Your task to perform on an android device: Show me productivity apps on the Play Store Image 0: 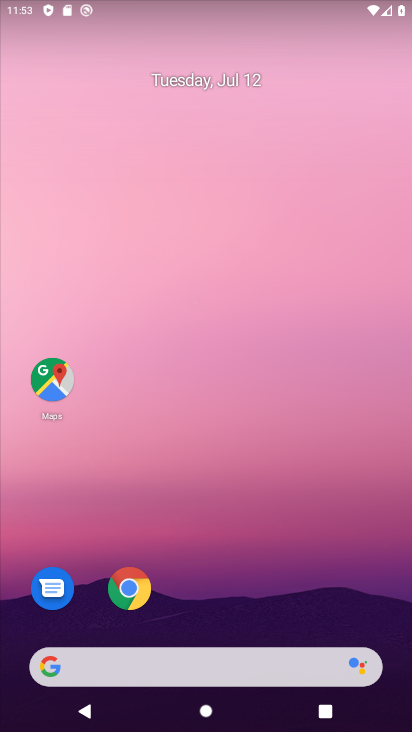
Step 0: drag from (276, 477) to (322, 80)
Your task to perform on an android device: Show me productivity apps on the Play Store Image 1: 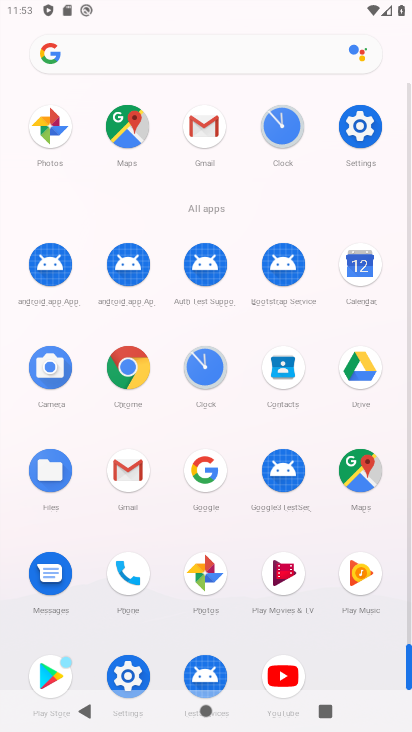
Step 1: click (50, 671)
Your task to perform on an android device: Show me productivity apps on the Play Store Image 2: 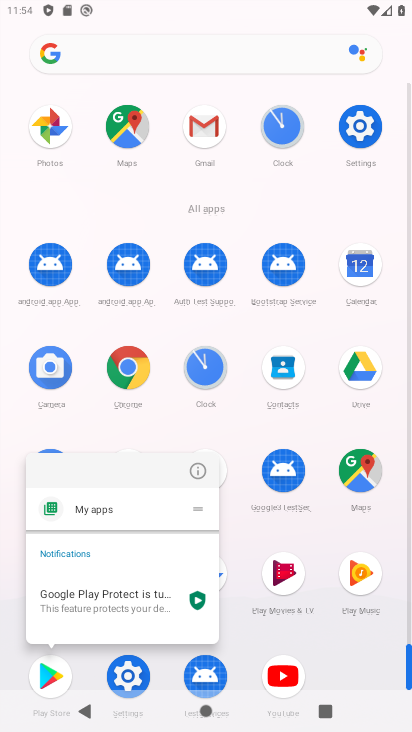
Step 2: click (197, 476)
Your task to perform on an android device: Show me productivity apps on the Play Store Image 3: 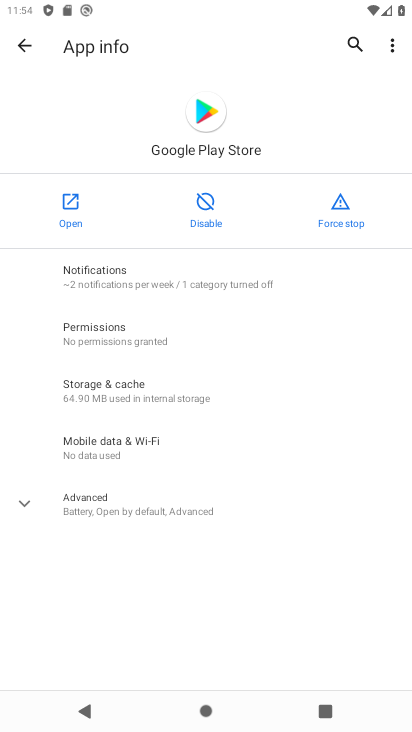
Step 3: click (72, 212)
Your task to perform on an android device: Show me productivity apps on the Play Store Image 4: 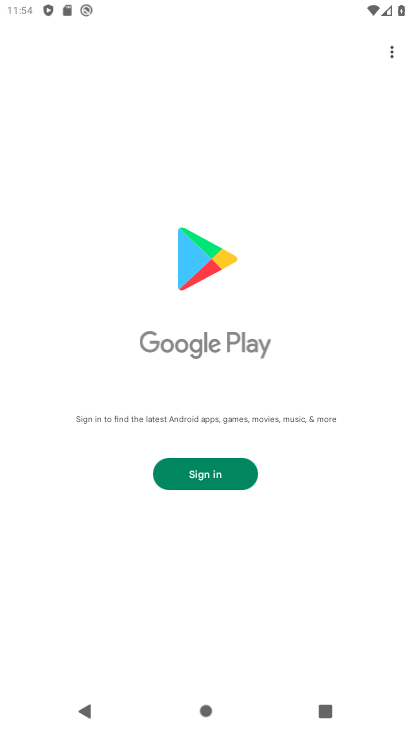
Step 4: click (289, 333)
Your task to perform on an android device: Show me productivity apps on the Play Store Image 5: 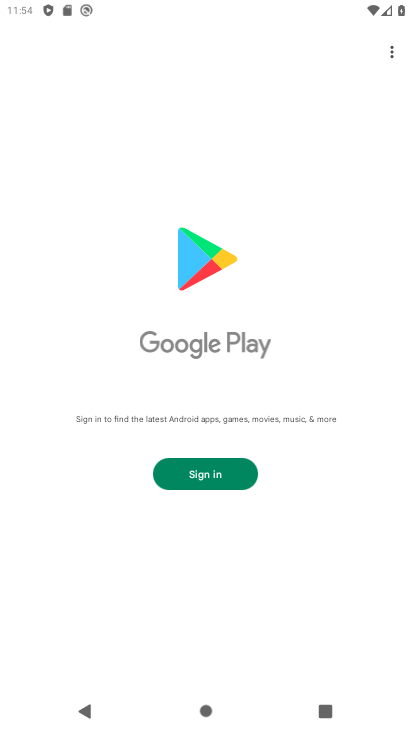
Step 5: task complete